Your task to perform on an android device: turn on javascript in the chrome app Image 0: 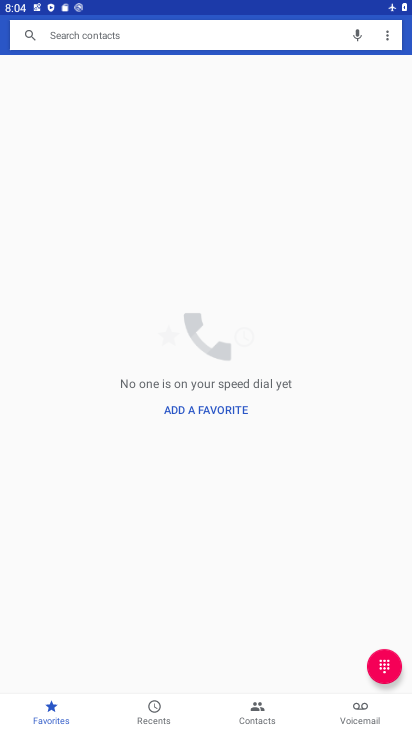
Step 0: press home button
Your task to perform on an android device: turn on javascript in the chrome app Image 1: 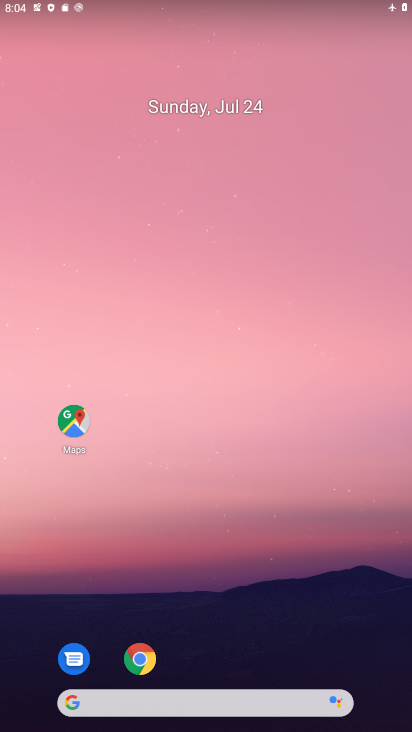
Step 1: drag from (210, 728) to (212, 91)
Your task to perform on an android device: turn on javascript in the chrome app Image 2: 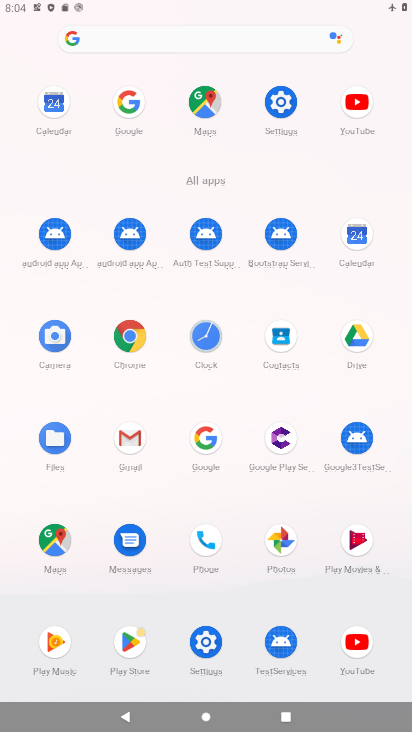
Step 2: click (129, 331)
Your task to perform on an android device: turn on javascript in the chrome app Image 3: 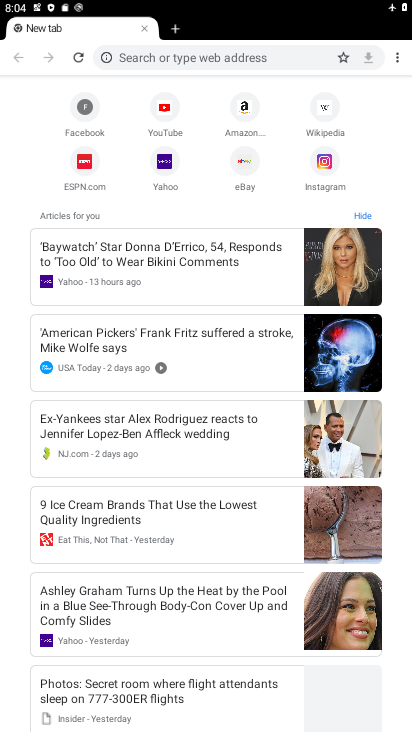
Step 3: click (398, 62)
Your task to perform on an android device: turn on javascript in the chrome app Image 4: 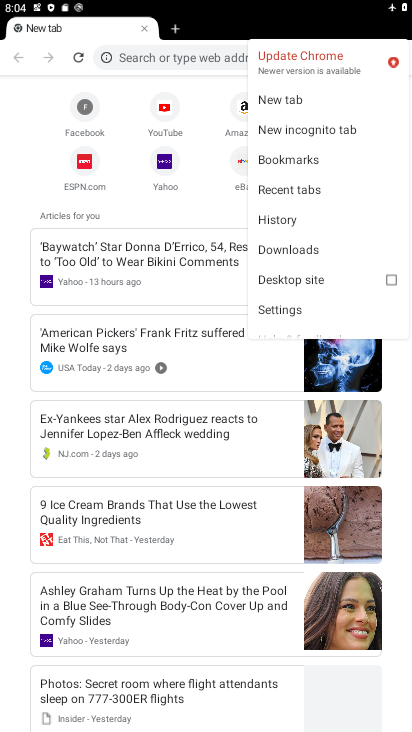
Step 4: click (280, 309)
Your task to perform on an android device: turn on javascript in the chrome app Image 5: 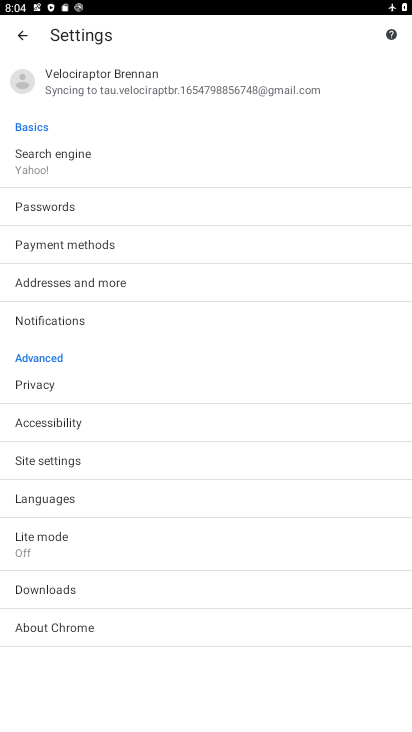
Step 5: click (35, 461)
Your task to perform on an android device: turn on javascript in the chrome app Image 6: 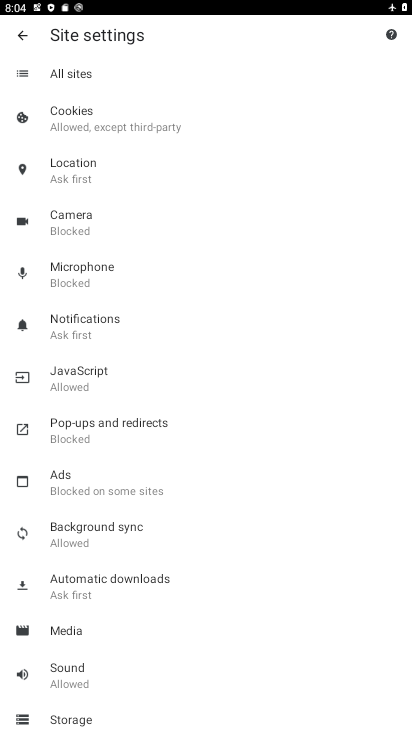
Step 6: click (67, 378)
Your task to perform on an android device: turn on javascript in the chrome app Image 7: 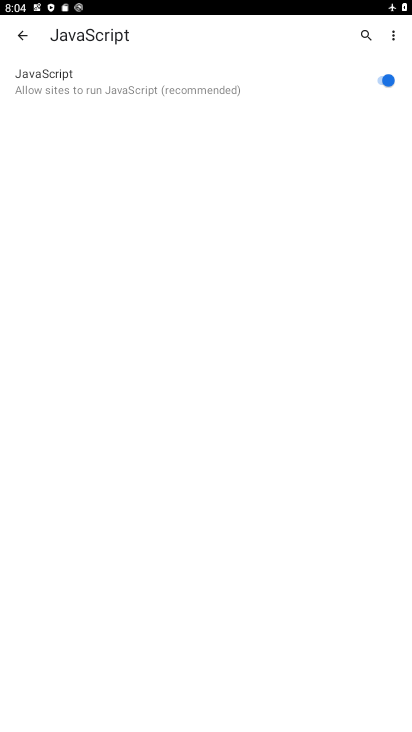
Step 7: task complete